Your task to perform on an android device: What is the recent news? Image 0: 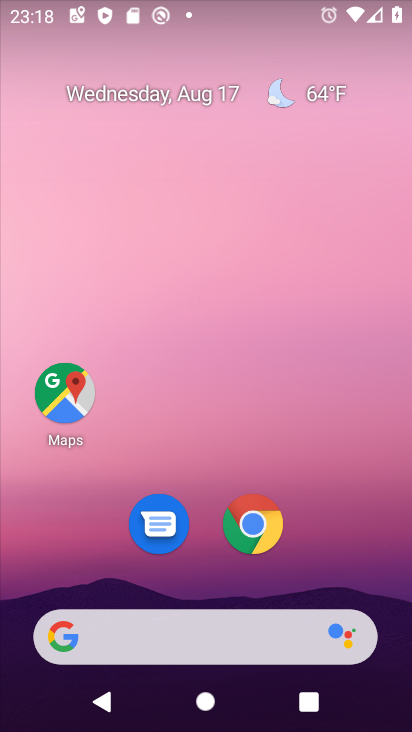
Step 0: click (225, 644)
Your task to perform on an android device: What is the recent news? Image 1: 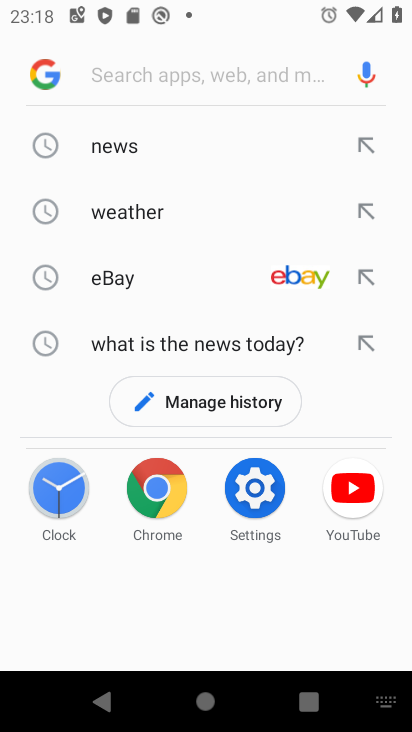
Step 1: click (198, 341)
Your task to perform on an android device: What is the recent news? Image 2: 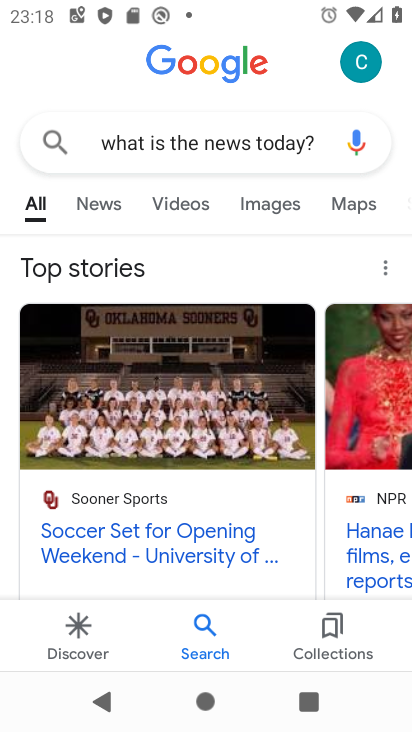
Step 2: click (89, 211)
Your task to perform on an android device: What is the recent news? Image 3: 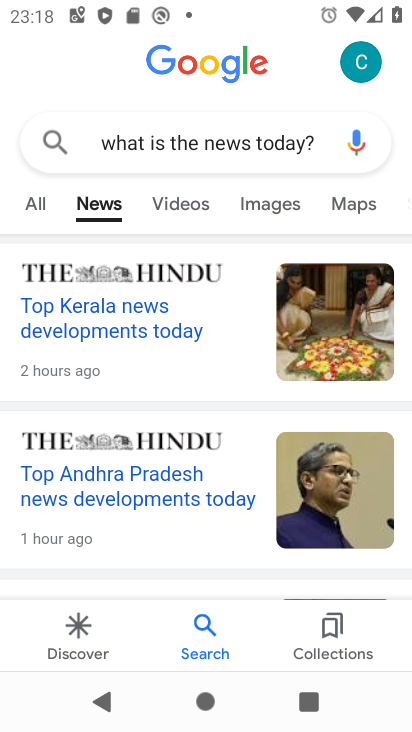
Step 3: task complete